Your task to perform on an android device: find snoozed emails in the gmail app Image 0: 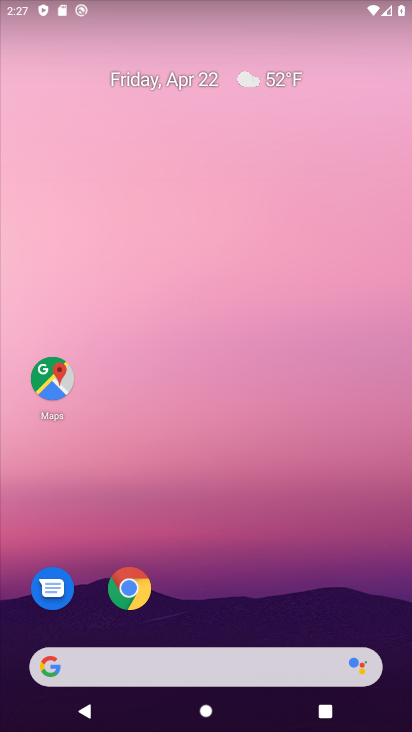
Step 0: drag from (377, 623) to (371, 0)
Your task to perform on an android device: find snoozed emails in the gmail app Image 1: 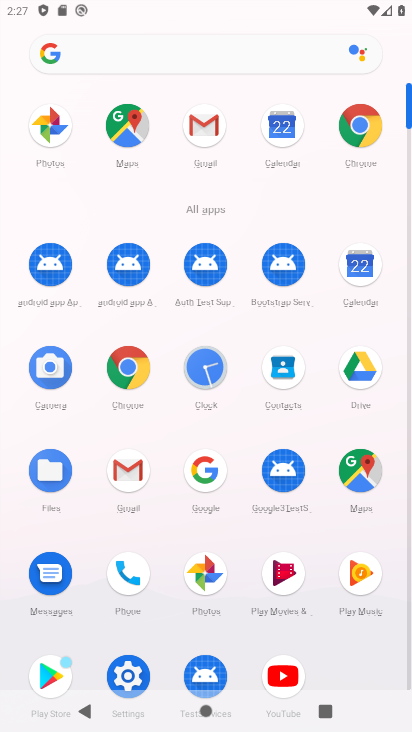
Step 1: click (203, 136)
Your task to perform on an android device: find snoozed emails in the gmail app Image 2: 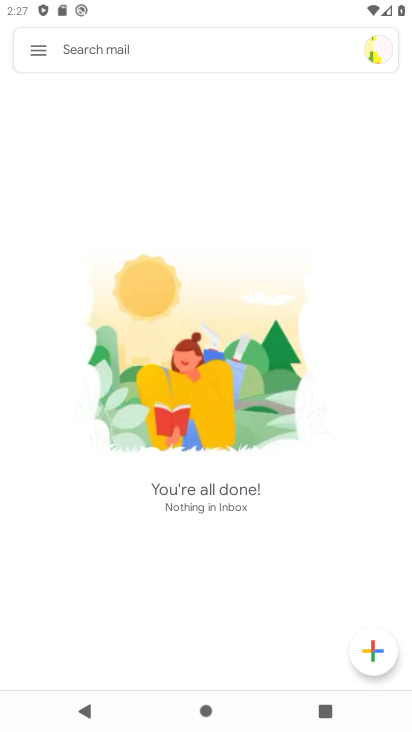
Step 2: click (39, 53)
Your task to perform on an android device: find snoozed emails in the gmail app Image 3: 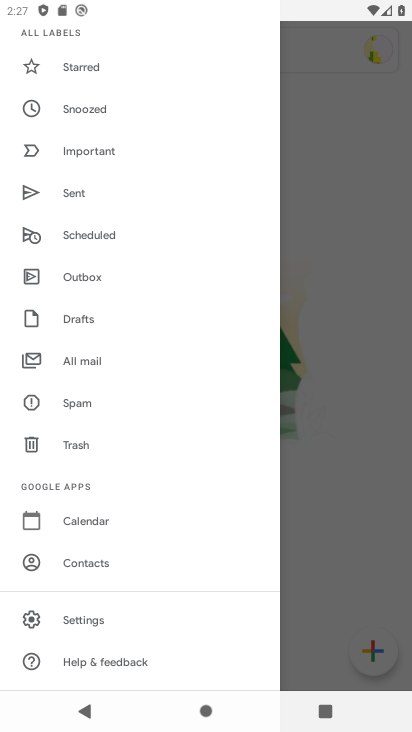
Step 3: click (81, 107)
Your task to perform on an android device: find snoozed emails in the gmail app Image 4: 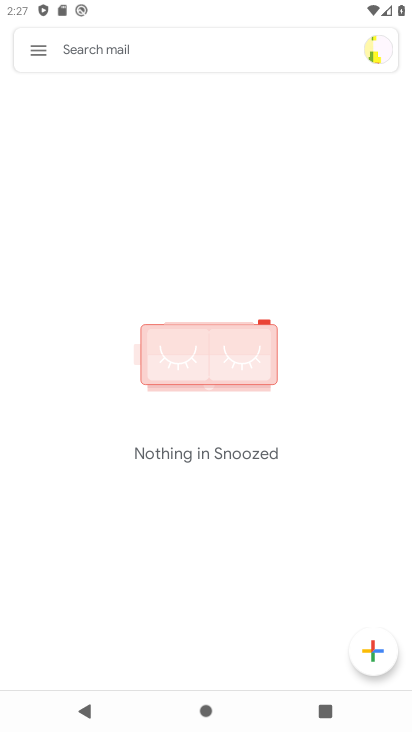
Step 4: task complete